Your task to perform on an android device: Show me the alarms in the clock app Image 0: 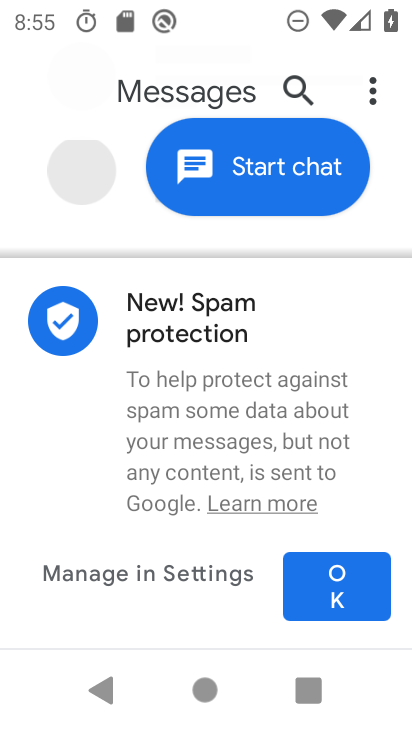
Step 0: press home button
Your task to perform on an android device: Show me the alarms in the clock app Image 1: 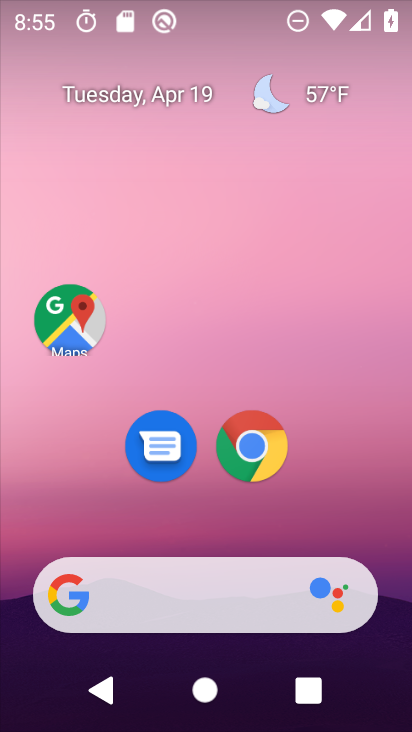
Step 1: drag from (352, 484) to (321, 177)
Your task to perform on an android device: Show me the alarms in the clock app Image 2: 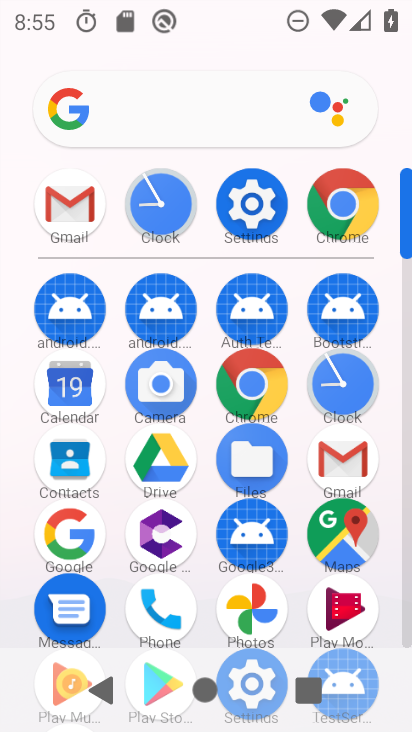
Step 2: click (355, 386)
Your task to perform on an android device: Show me the alarms in the clock app Image 3: 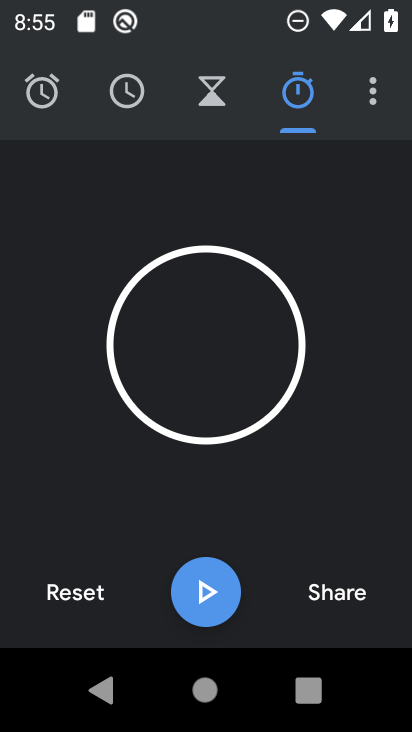
Step 3: click (44, 97)
Your task to perform on an android device: Show me the alarms in the clock app Image 4: 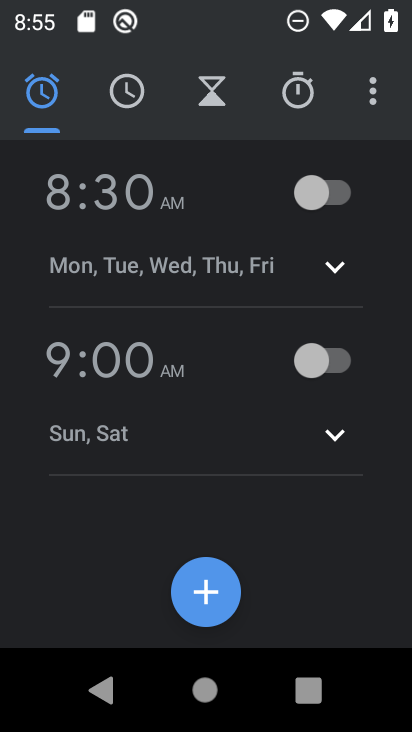
Step 4: task complete